Your task to perform on an android device: allow notifications from all sites in the chrome app Image 0: 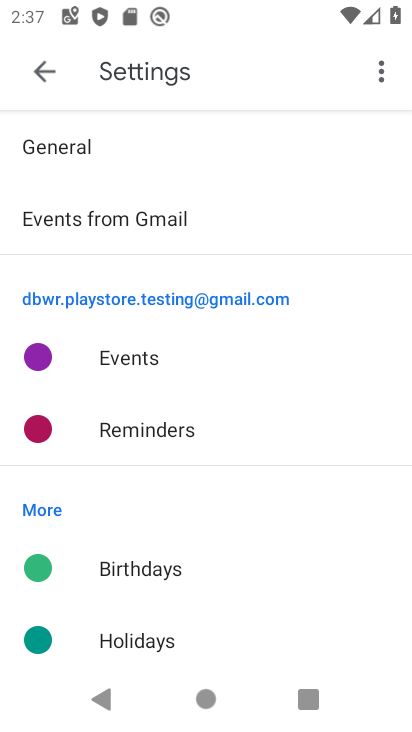
Step 0: press home button
Your task to perform on an android device: allow notifications from all sites in the chrome app Image 1: 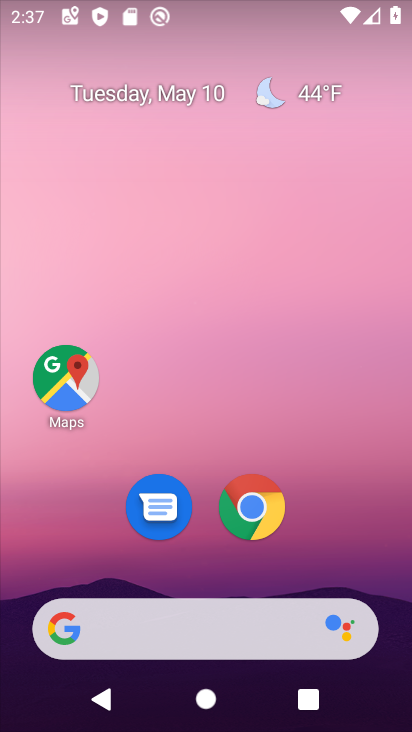
Step 1: click (252, 507)
Your task to perform on an android device: allow notifications from all sites in the chrome app Image 2: 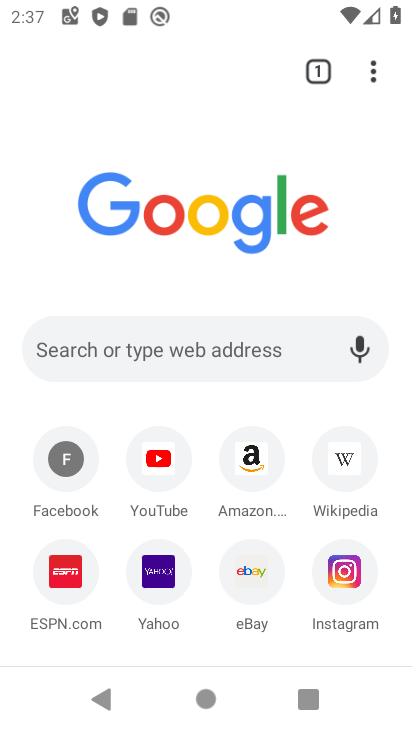
Step 2: click (373, 78)
Your task to perform on an android device: allow notifications from all sites in the chrome app Image 3: 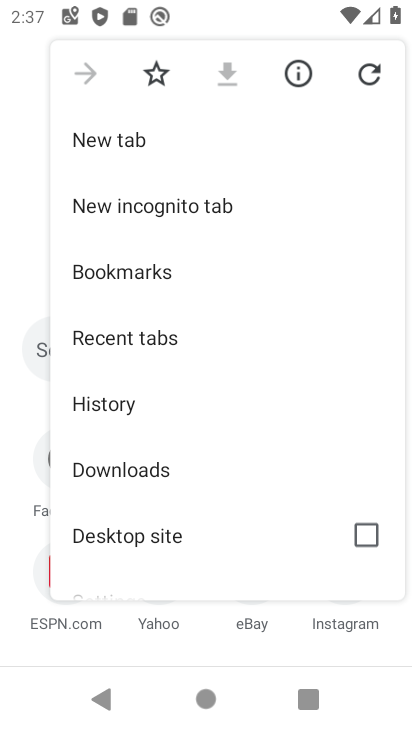
Step 3: drag from (142, 490) to (144, 181)
Your task to perform on an android device: allow notifications from all sites in the chrome app Image 4: 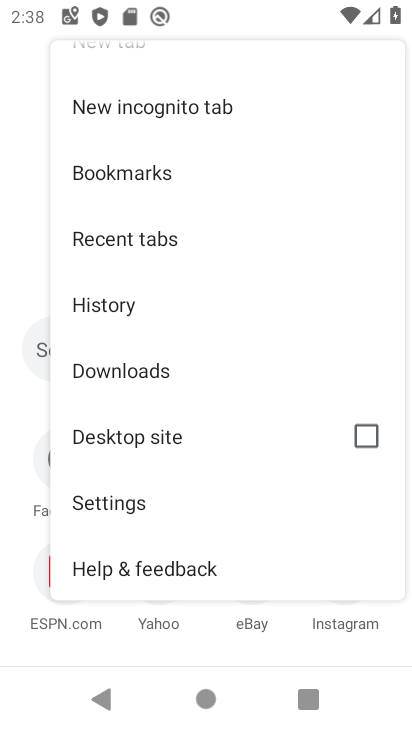
Step 4: click (88, 501)
Your task to perform on an android device: allow notifications from all sites in the chrome app Image 5: 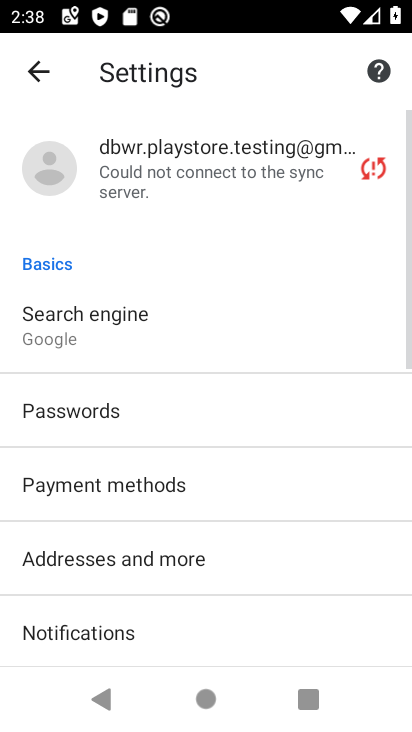
Step 5: drag from (144, 612) to (158, 354)
Your task to perform on an android device: allow notifications from all sites in the chrome app Image 6: 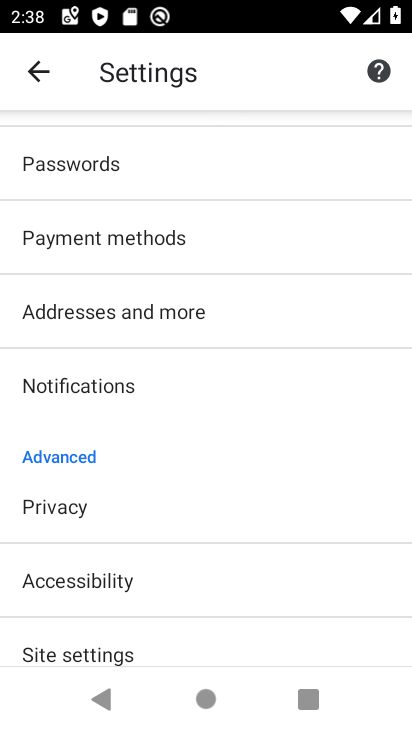
Step 6: drag from (224, 636) to (223, 319)
Your task to perform on an android device: allow notifications from all sites in the chrome app Image 7: 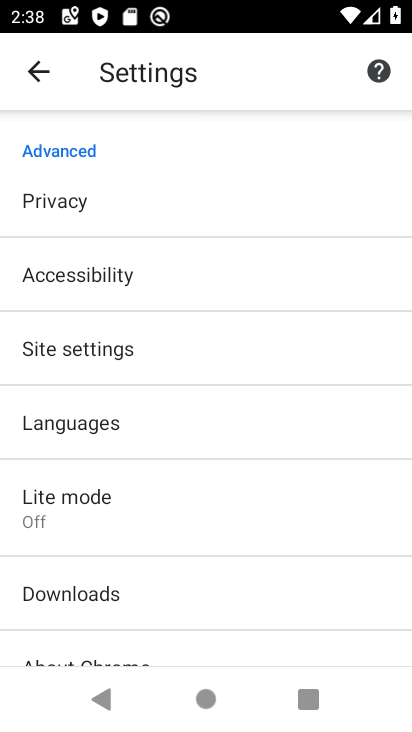
Step 7: click (75, 335)
Your task to perform on an android device: allow notifications from all sites in the chrome app Image 8: 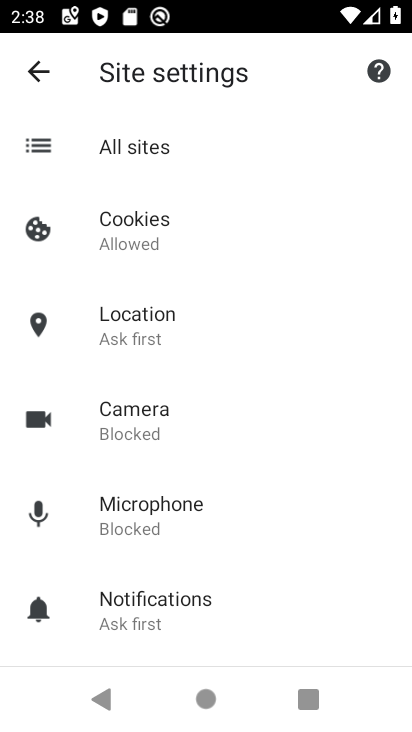
Step 8: drag from (151, 606) to (187, 282)
Your task to perform on an android device: allow notifications from all sites in the chrome app Image 9: 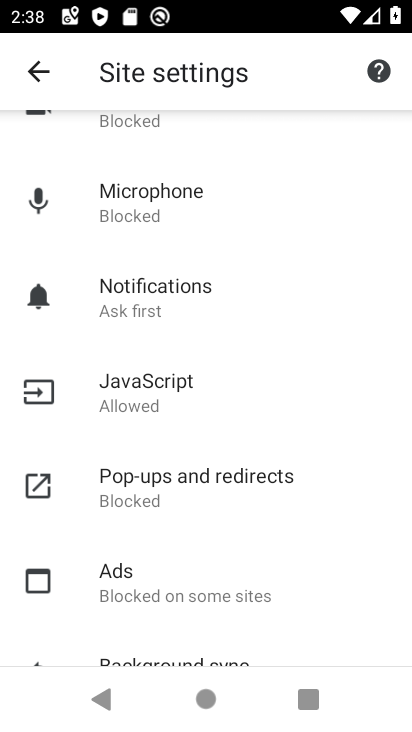
Step 9: click (138, 291)
Your task to perform on an android device: allow notifications from all sites in the chrome app Image 10: 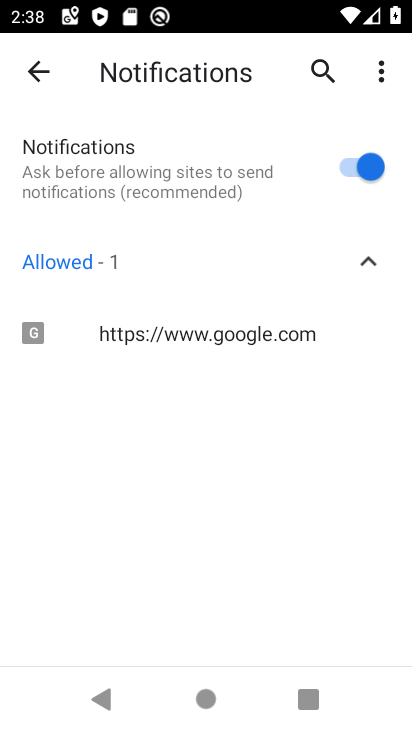
Step 10: task complete